Your task to perform on an android device: Open Wikipedia Image 0: 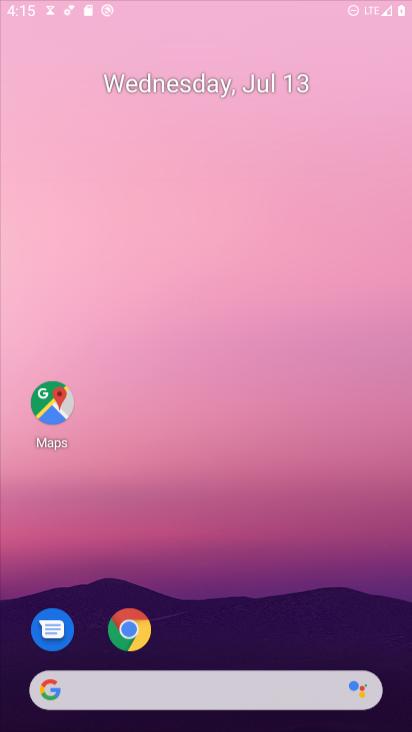
Step 0: press home button
Your task to perform on an android device: Open Wikipedia Image 1: 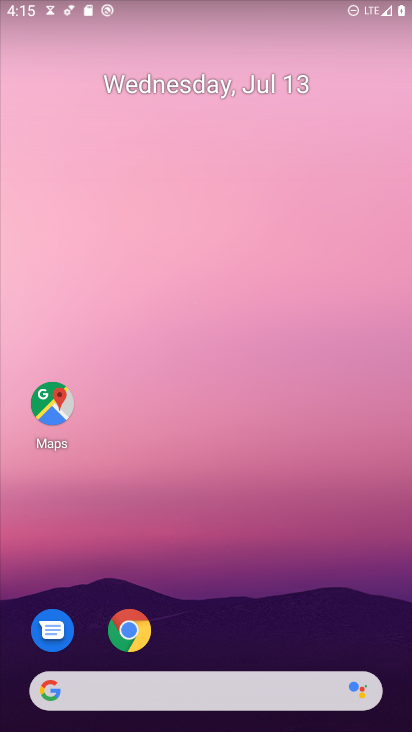
Step 1: click (48, 692)
Your task to perform on an android device: Open Wikipedia Image 2: 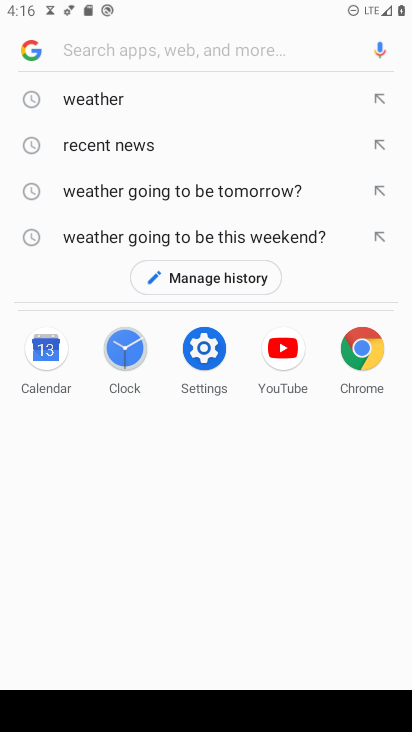
Step 2: type "Wikipedia"
Your task to perform on an android device: Open Wikipedia Image 3: 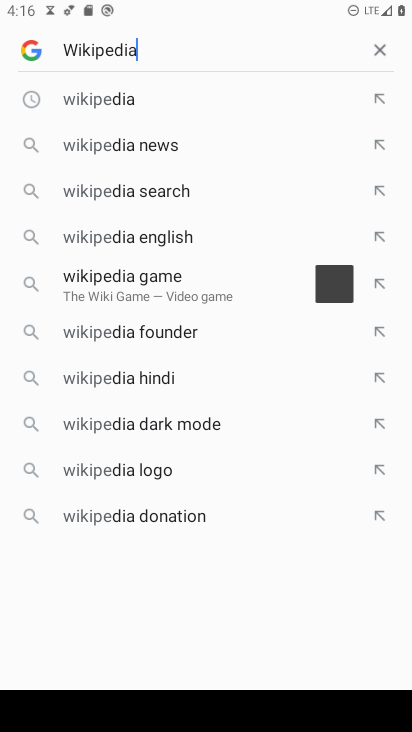
Step 3: press enter
Your task to perform on an android device: Open Wikipedia Image 4: 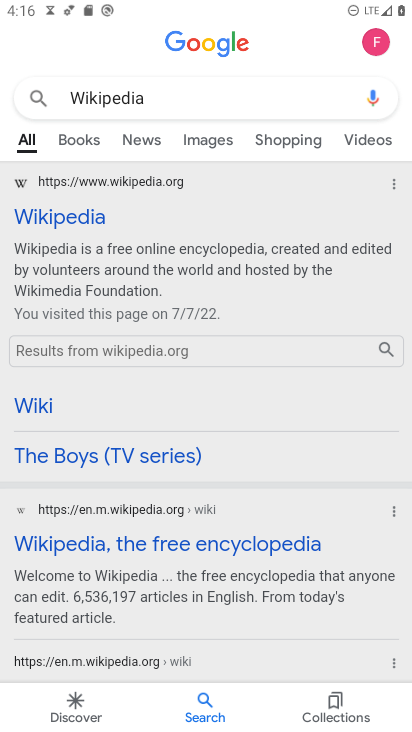
Step 4: click (57, 224)
Your task to perform on an android device: Open Wikipedia Image 5: 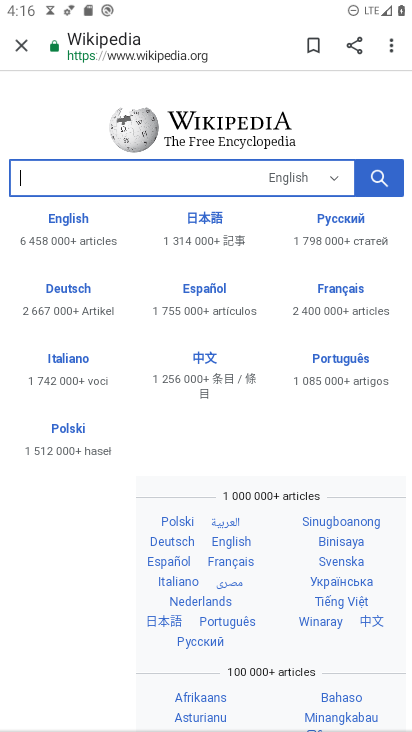
Step 5: task complete